Your task to perform on an android device: open the mobile data screen to see how much data has been used Image 0: 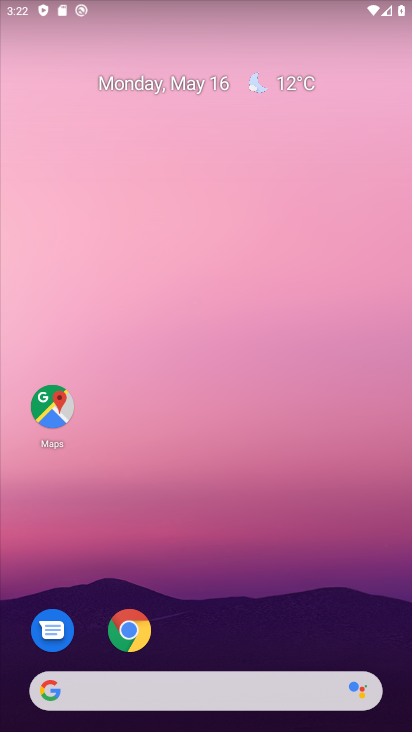
Step 0: drag from (214, 555) to (308, 92)
Your task to perform on an android device: open the mobile data screen to see how much data has been used Image 1: 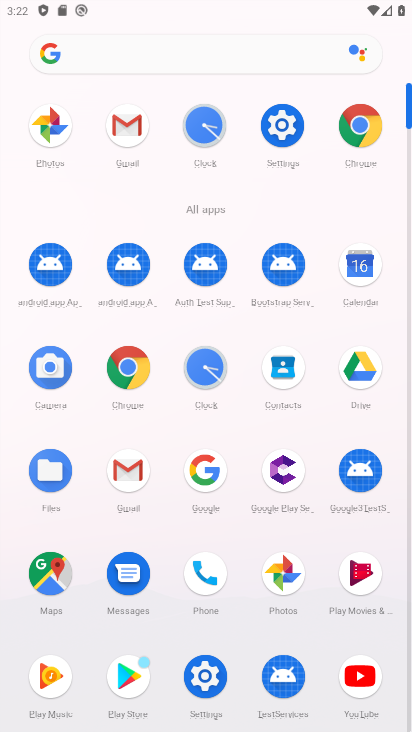
Step 1: click (212, 674)
Your task to perform on an android device: open the mobile data screen to see how much data has been used Image 2: 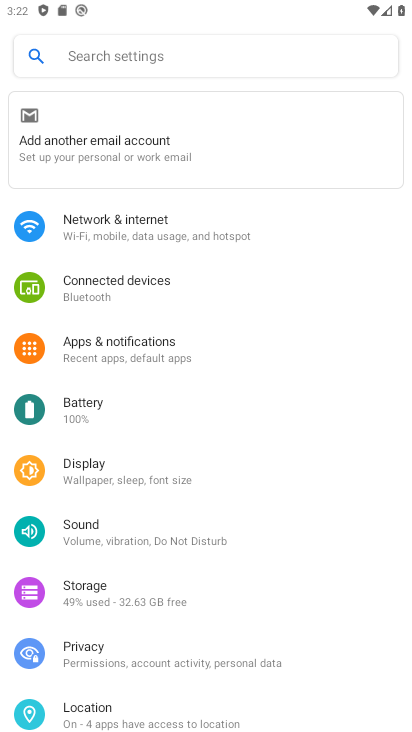
Step 2: click (157, 212)
Your task to perform on an android device: open the mobile data screen to see how much data has been used Image 3: 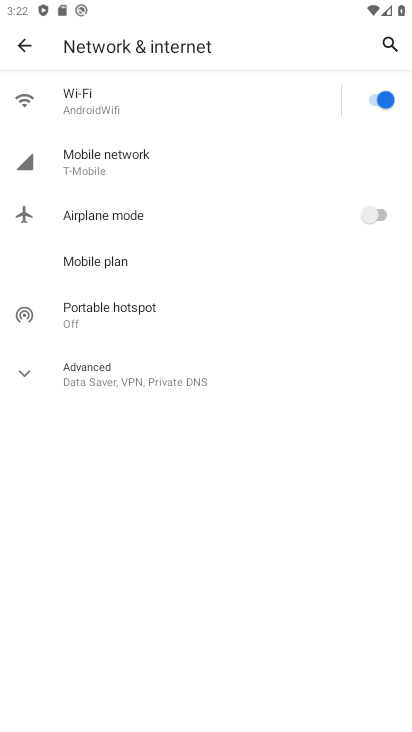
Step 3: click (197, 172)
Your task to perform on an android device: open the mobile data screen to see how much data has been used Image 4: 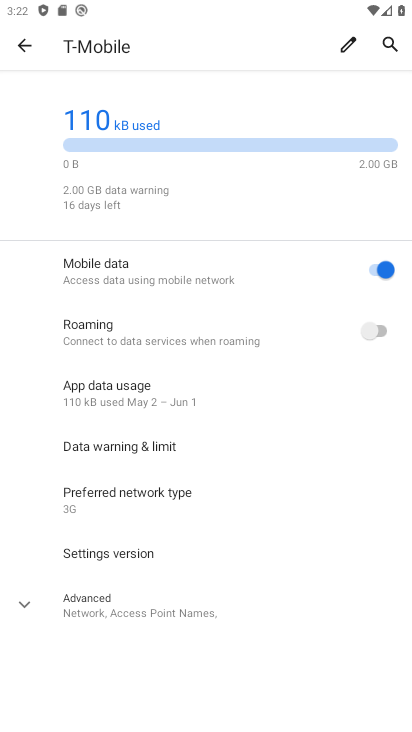
Step 4: task complete